Your task to perform on an android device: move a message to another label in the gmail app Image 0: 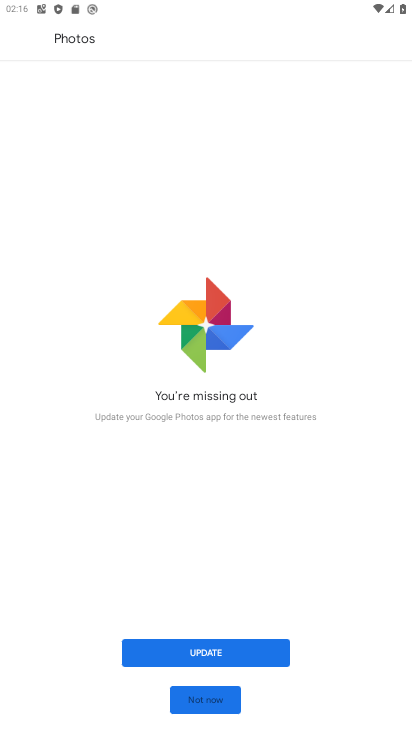
Step 0: press home button
Your task to perform on an android device: move a message to another label in the gmail app Image 1: 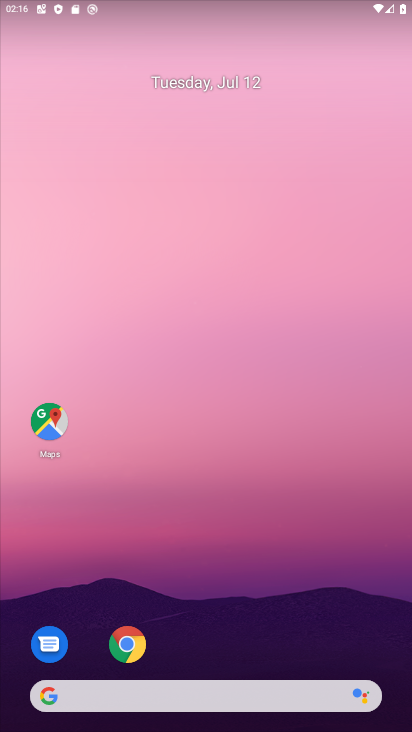
Step 1: drag from (187, 650) to (167, 145)
Your task to perform on an android device: move a message to another label in the gmail app Image 2: 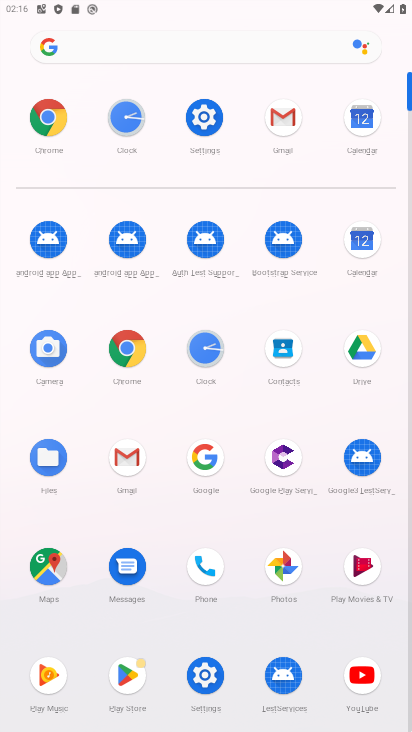
Step 2: click (129, 448)
Your task to perform on an android device: move a message to another label in the gmail app Image 3: 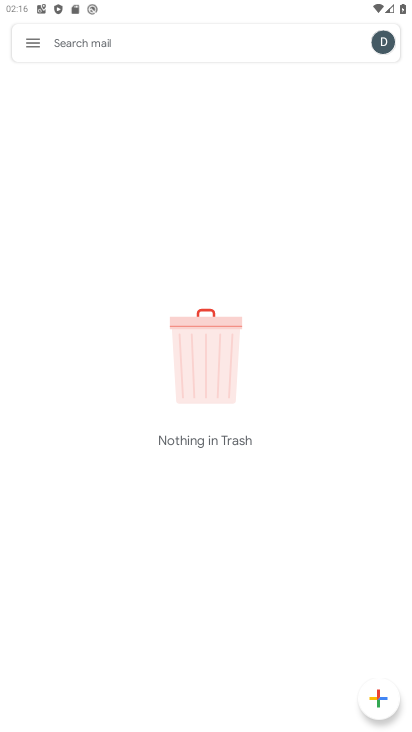
Step 3: task complete